Your task to perform on an android device: find photos in the google photos app Image 0: 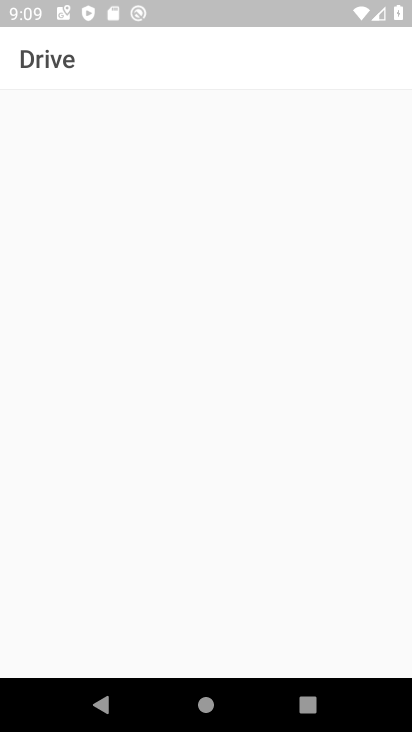
Step 0: press home button
Your task to perform on an android device: find photos in the google photos app Image 1: 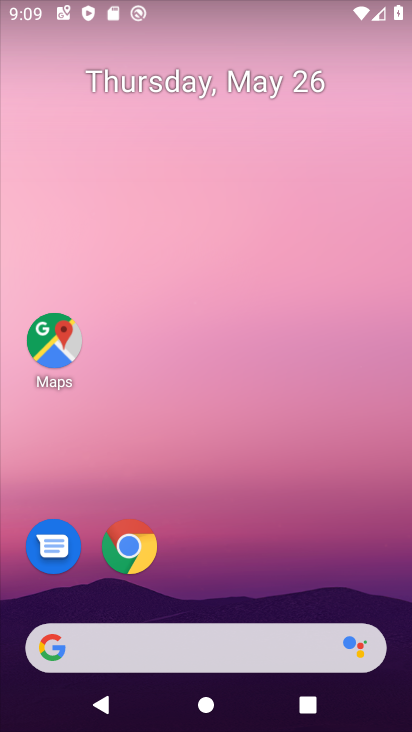
Step 1: drag from (205, 604) to (170, 180)
Your task to perform on an android device: find photos in the google photos app Image 2: 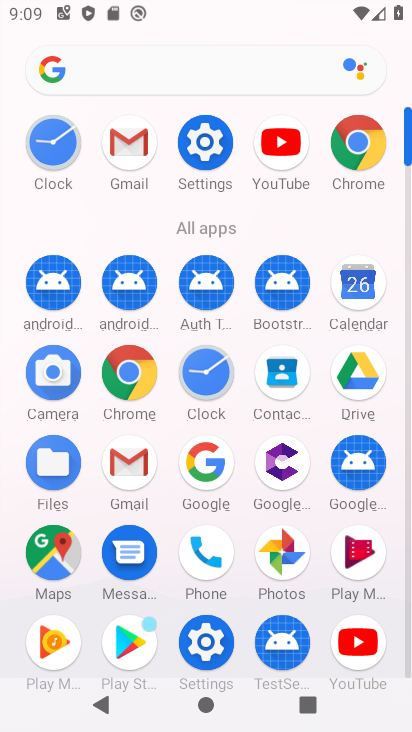
Step 2: click (284, 549)
Your task to perform on an android device: find photos in the google photos app Image 3: 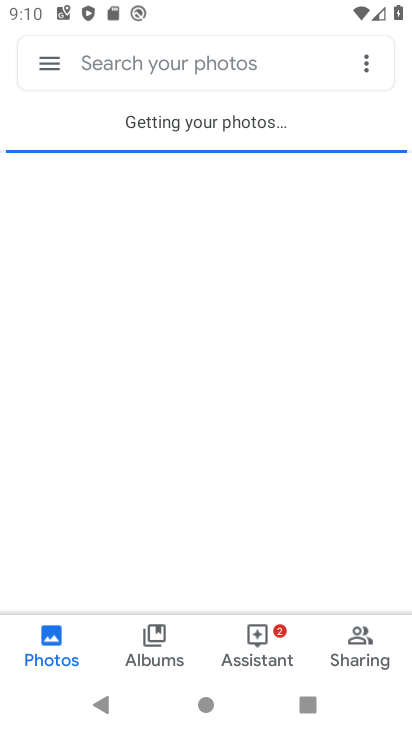
Step 3: task complete